Your task to perform on an android device: Turn on the flashlight Image 0: 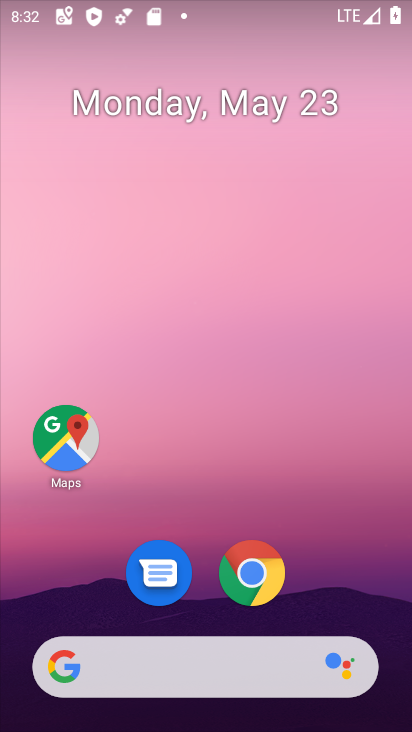
Step 0: drag from (275, 492) to (265, 28)
Your task to perform on an android device: Turn on the flashlight Image 1: 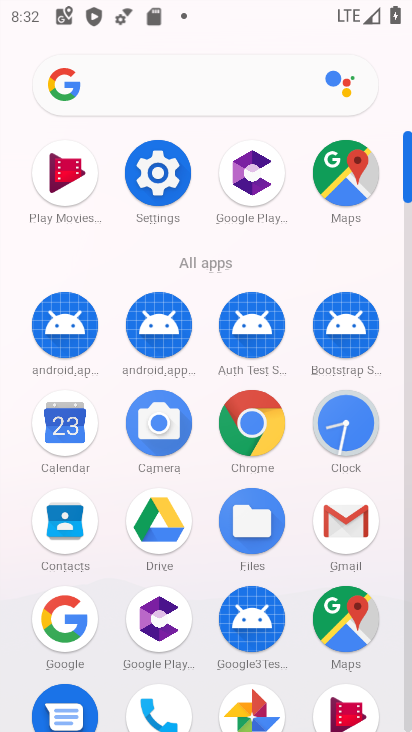
Step 1: click (178, 174)
Your task to perform on an android device: Turn on the flashlight Image 2: 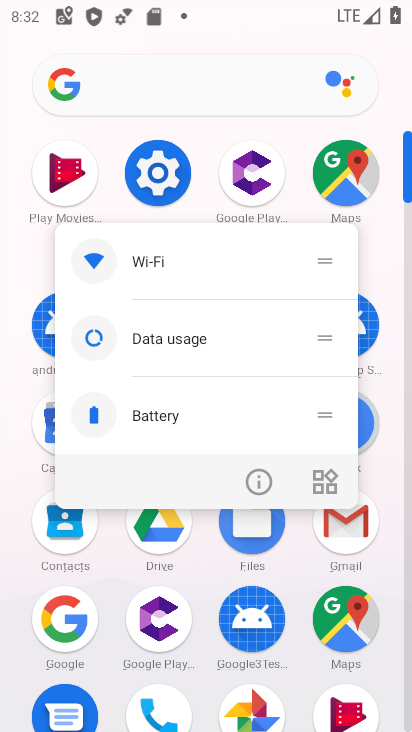
Step 2: click (160, 178)
Your task to perform on an android device: Turn on the flashlight Image 3: 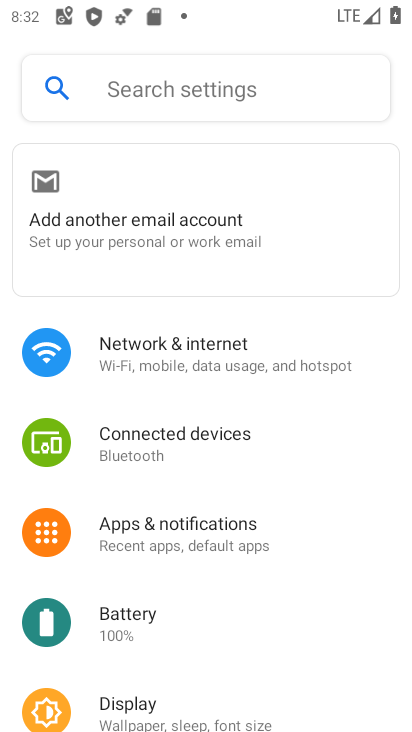
Step 3: click (130, 343)
Your task to perform on an android device: Turn on the flashlight Image 4: 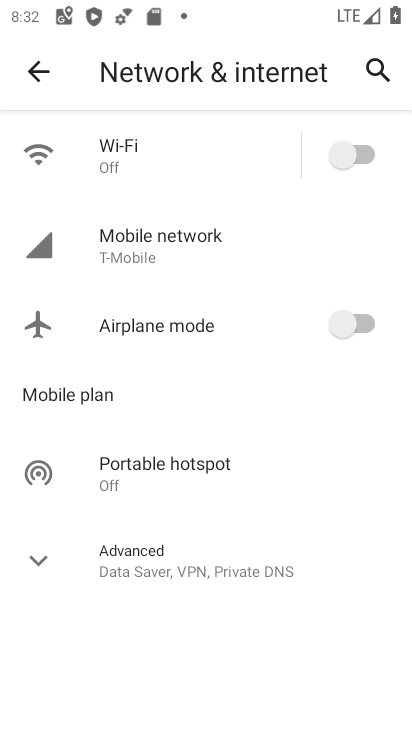
Step 4: click (38, 67)
Your task to perform on an android device: Turn on the flashlight Image 5: 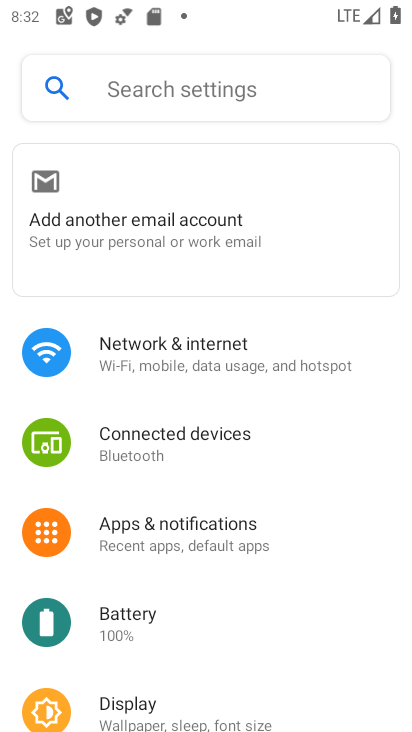
Step 5: click (151, 79)
Your task to perform on an android device: Turn on the flashlight Image 6: 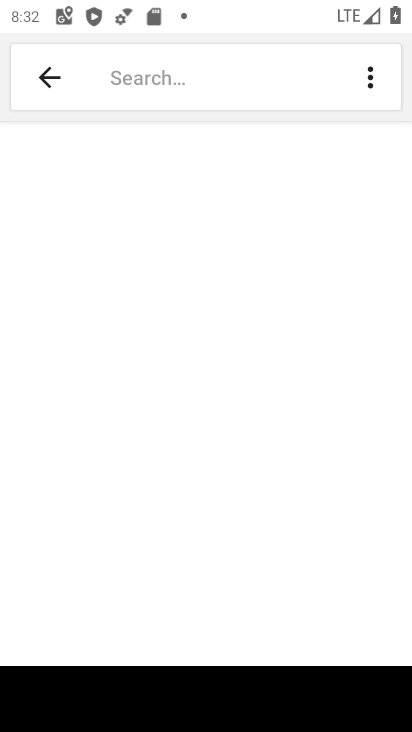
Step 6: type "Flashlight"
Your task to perform on an android device: Turn on the flashlight Image 7: 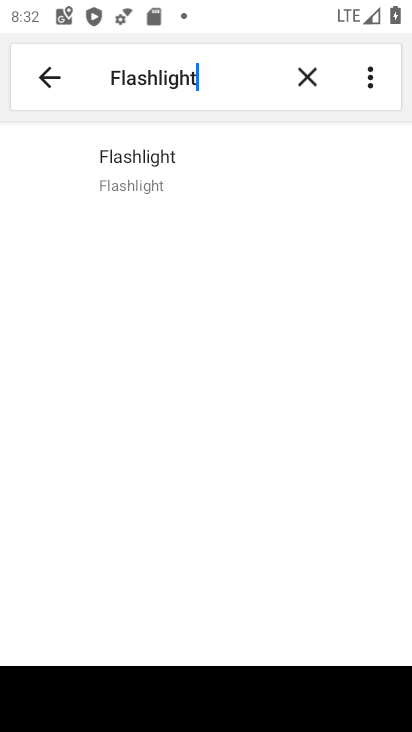
Step 7: click (131, 154)
Your task to perform on an android device: Turn on the flashlight Image 8: 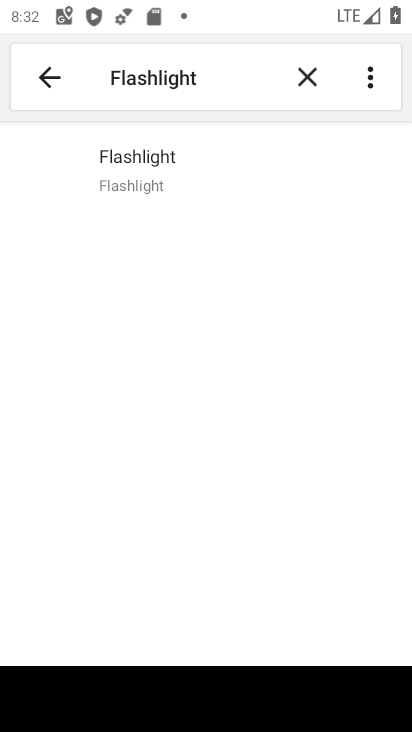
Step 8: click (131, 154)
Your task to perform on an android device: Turn on the flashlight Image 9: 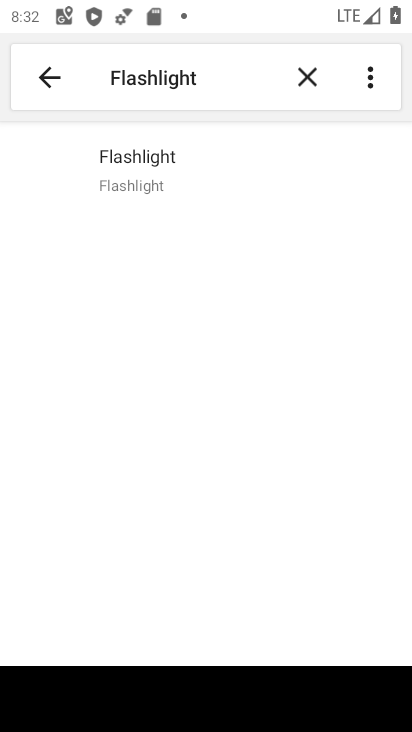
Step 9: task complete